Your task to perform on an android device: star an email in the gmail app Image 0: 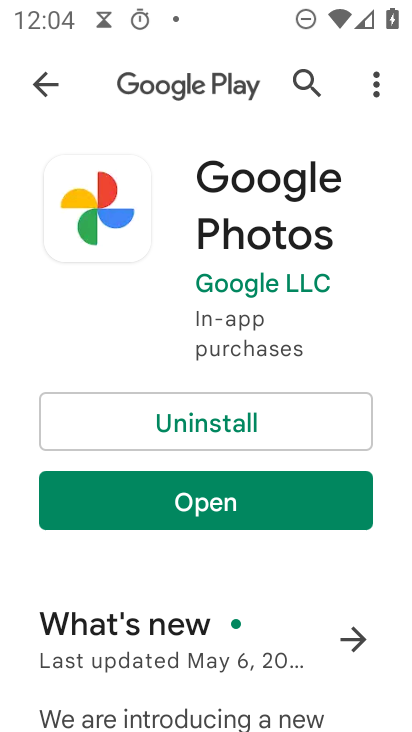
Step 0: press home button
Your task to perform on an android device: star an email in the gmail app Image 1: 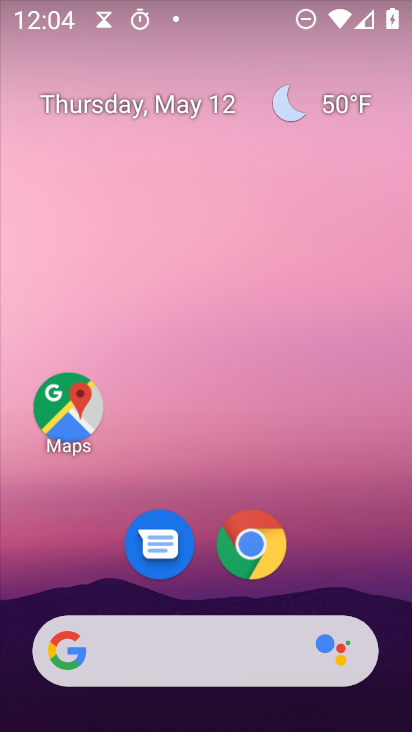
Step 1: drag from (203, 584) to (226, 85)
Your task to perform on an android device: star an email in the gmail app Image 2: 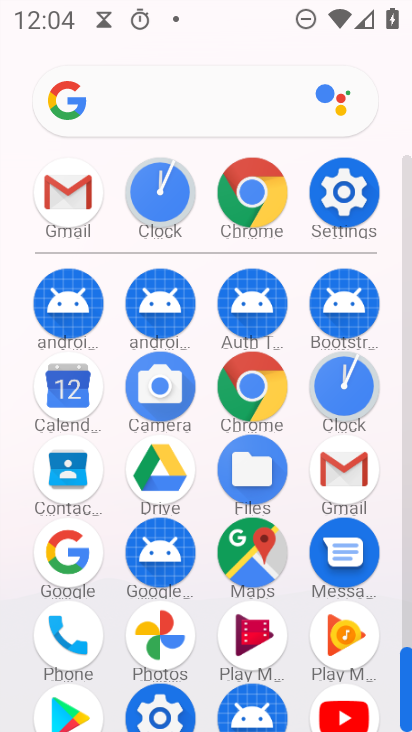
Step 2: click (76, 185)
Your task to perform on an android device: star an email in the gmail app Image 3: 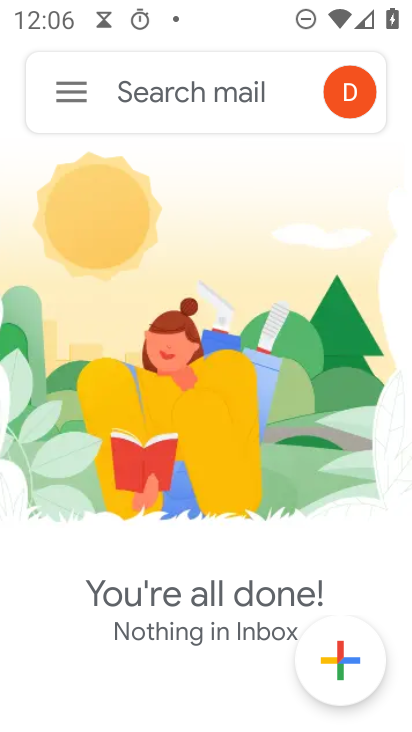
Step 3: task complete